Your task to perform on an android device: What's a good restaurant near me? Image 0: 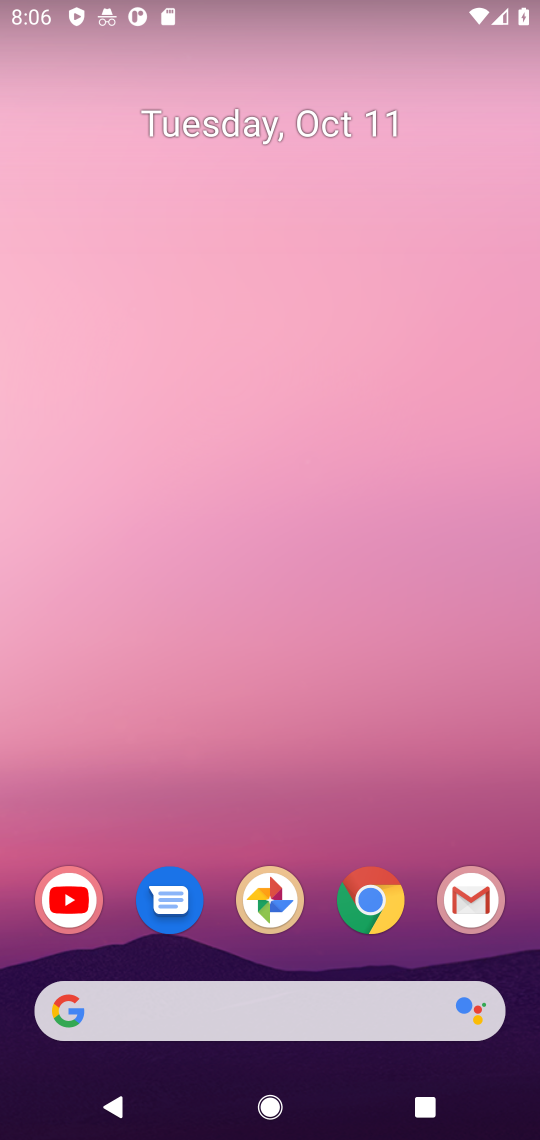
Step 0: click (366, 893)
Your task to perform on an android device: What's a good restaurant near me? Image 1: 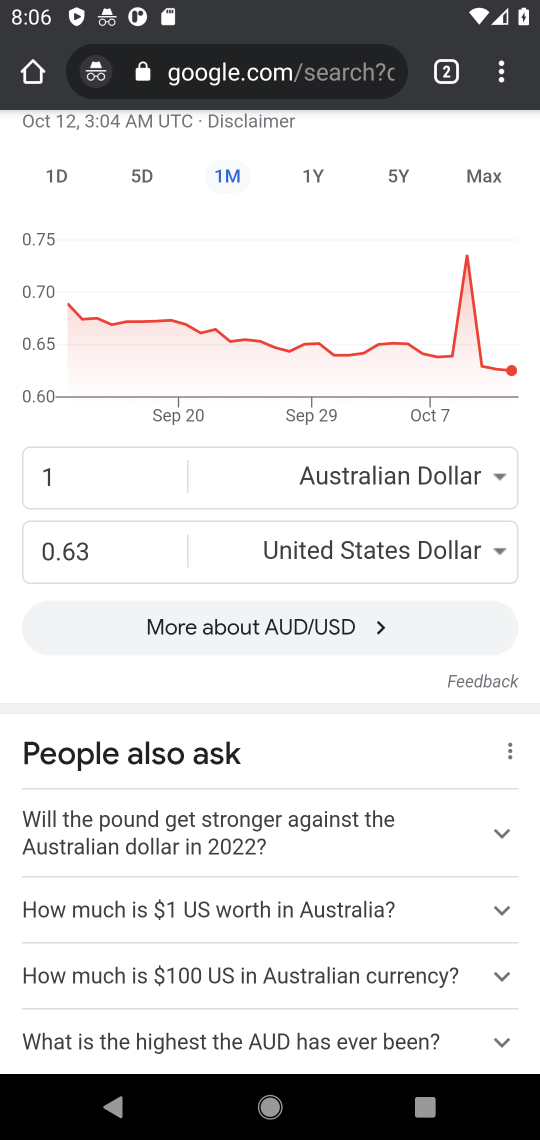
Step 1: click (346, 70)
Your task to perform on an android device: What's a good restaurant near me? Image 2: 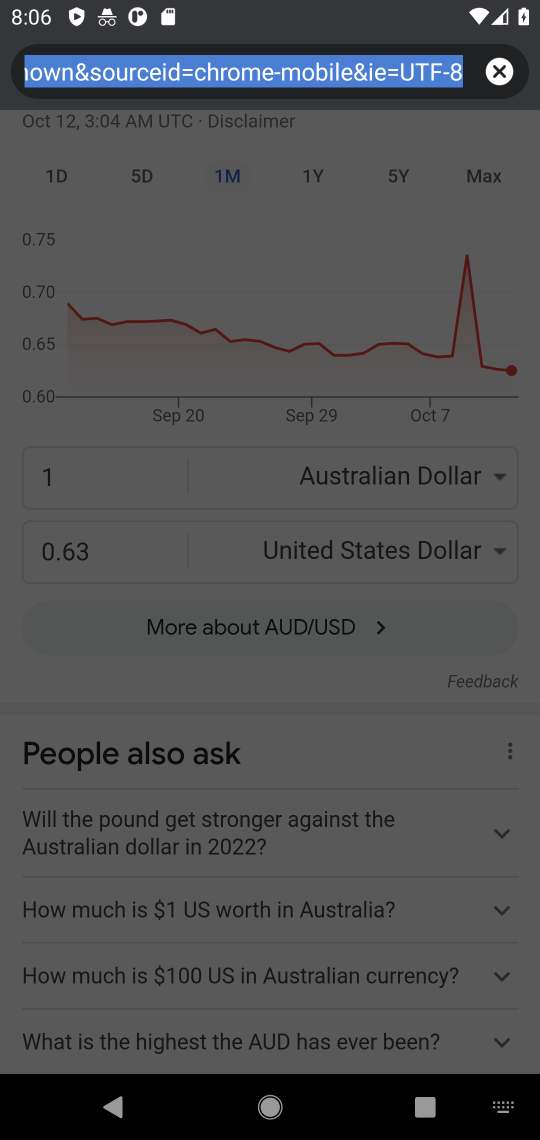
Step 2: type "good restaurant near me"
Your task to perform on an android device: What's a good restaurant near me? Image 3: 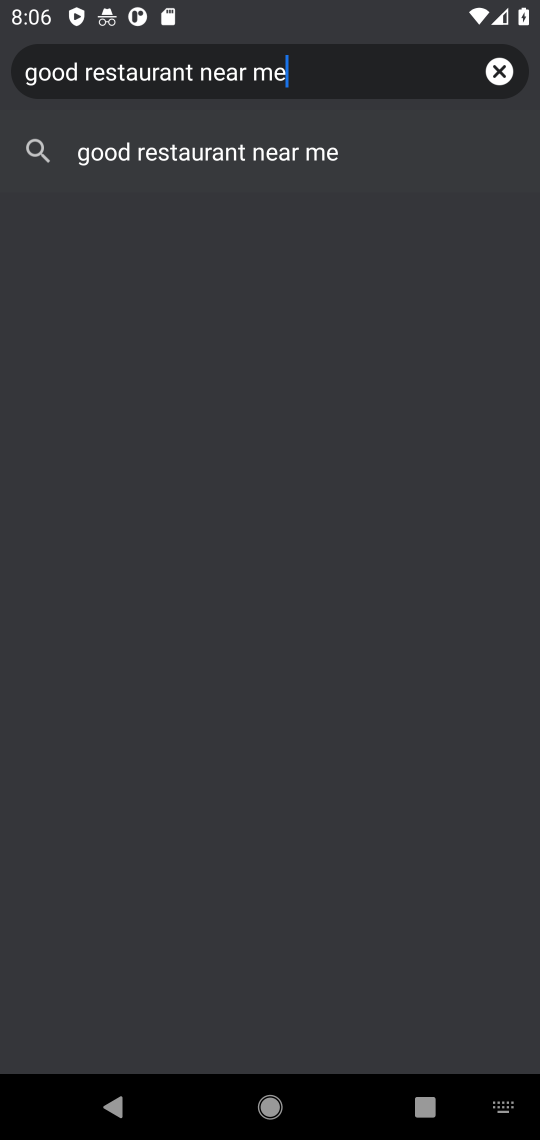
Step 3: type "good restaurant near me"
Your task to perform on an android device: What's a good restaurant near me? Image 4: 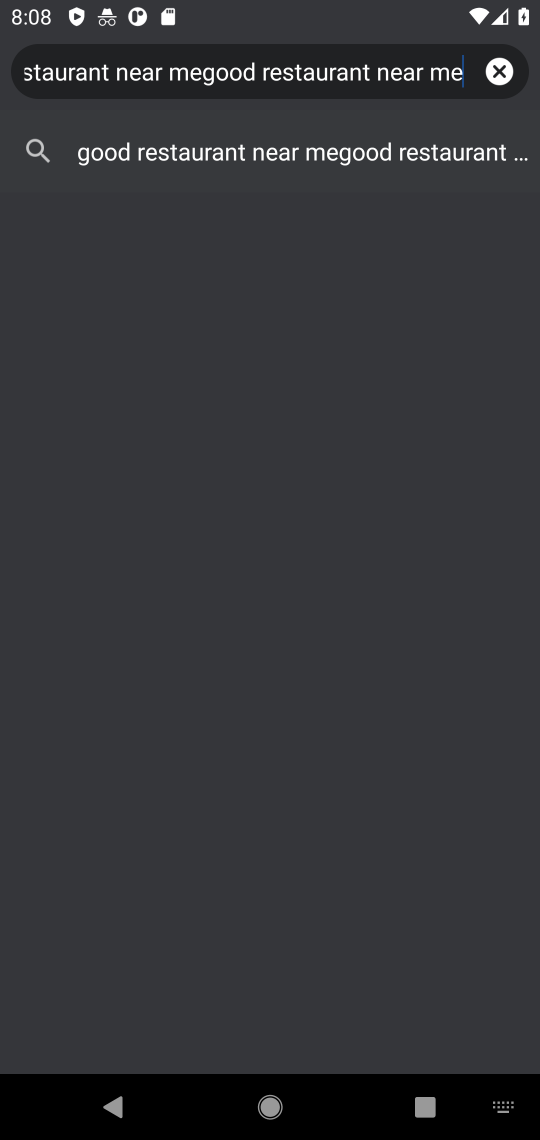
Step 4: click (511, 71)
Your task to perform on an android device: What's a good restaurant near me? Image 5: 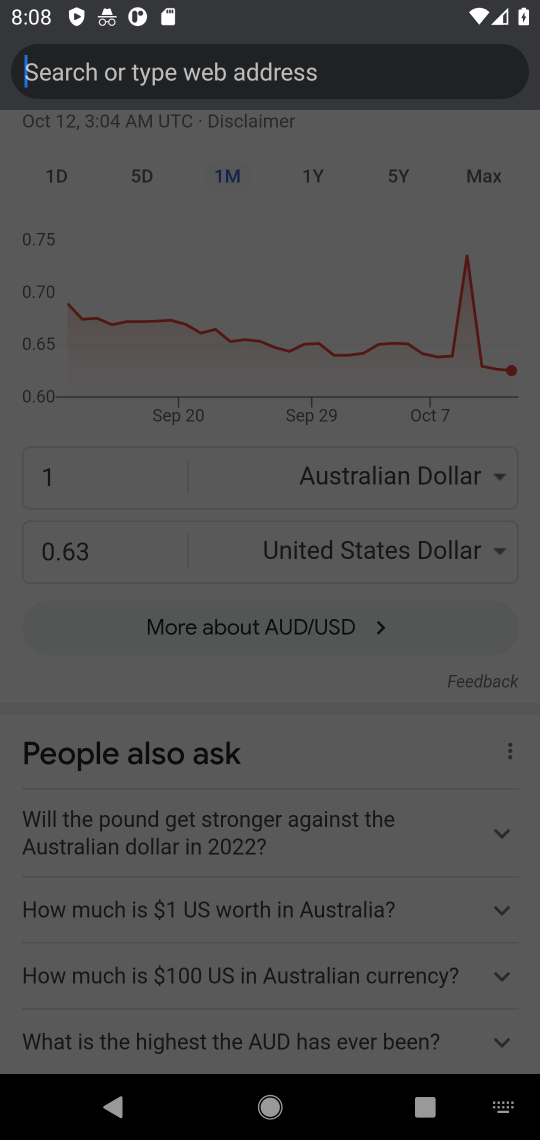
Step 5: type "good restaurant near me"
Your task to perform on an android device: What's a good restaurant near me? Image 6: 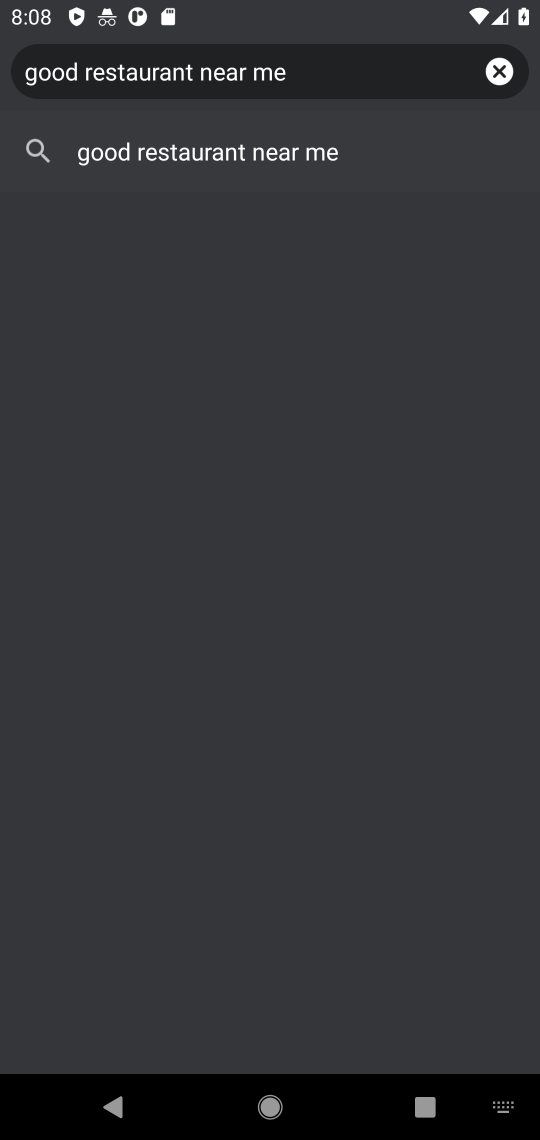
Step 6: click (386, 151)
Your task to perform on an android device: What's a good restaurant near me? Image 7: 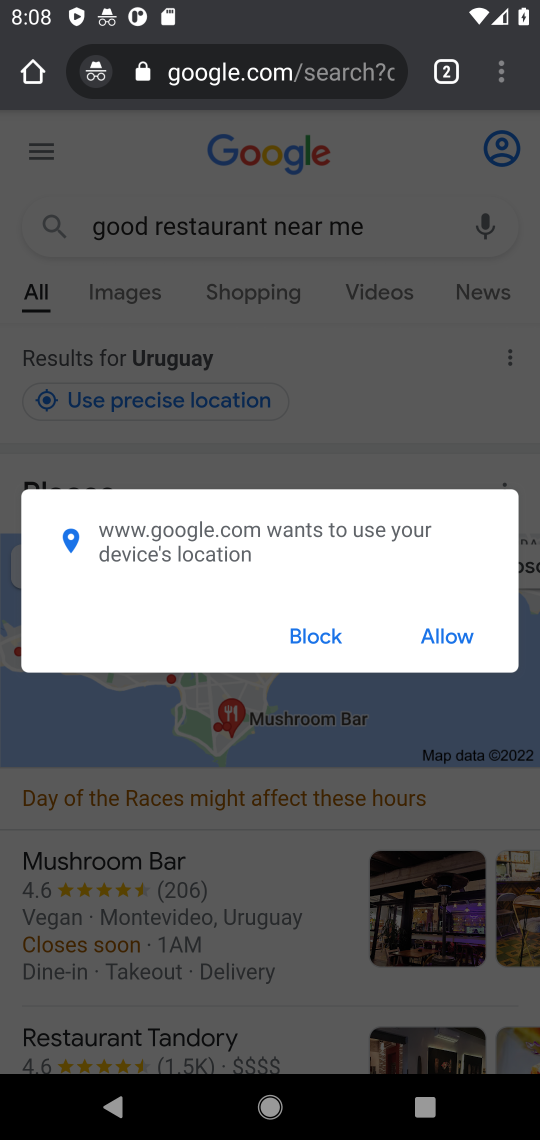
Step 7: click (333, 640)
Your task to perform on an android device: What's a good restaurant near me? Image 8: 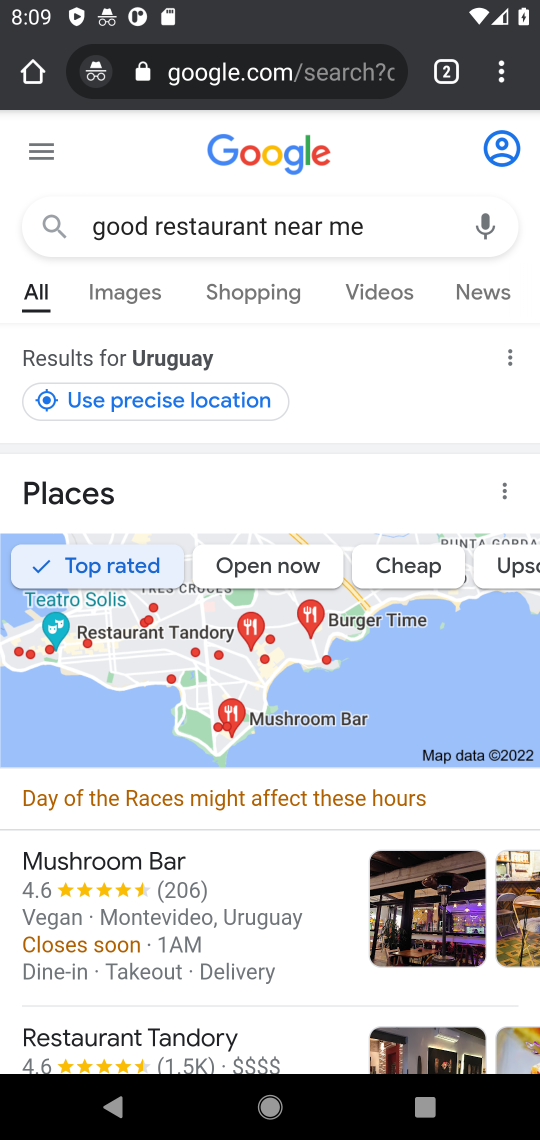
Step 8: task complete